Your task to perform on an android device: manage bookmarks in the chrome app Image 0: 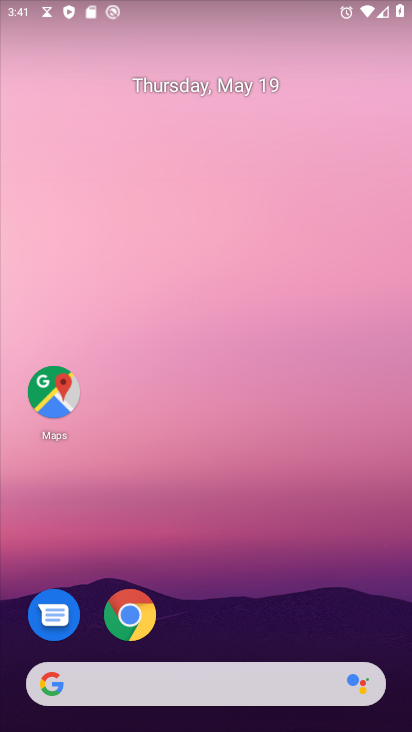
Step 0: drag from (294, 668) to (158, 139)
Your task to perform on an android device: manage bookmarks in the chrome app Image 1: 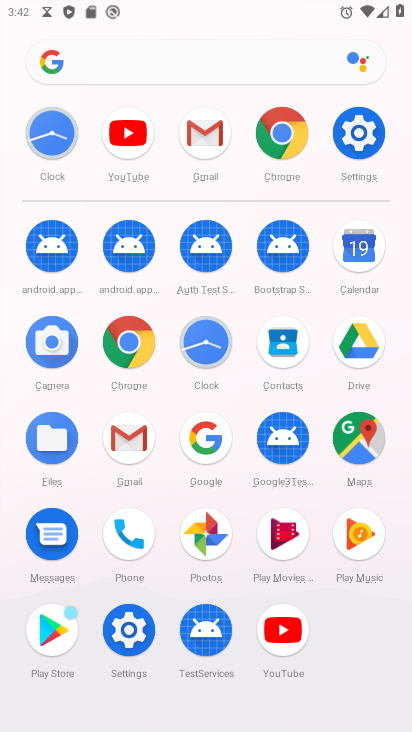
Step 1: click (291, 144)
Your task to perform on an android device: manage bookmarks in the chrome app Image 2: 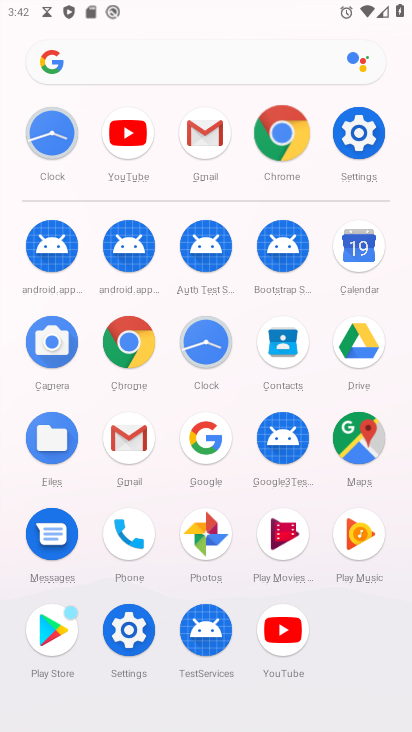
Step 2: click (288, 137)
Your task to perform on an android device: manage bookmarks in the chrome app Image 3: 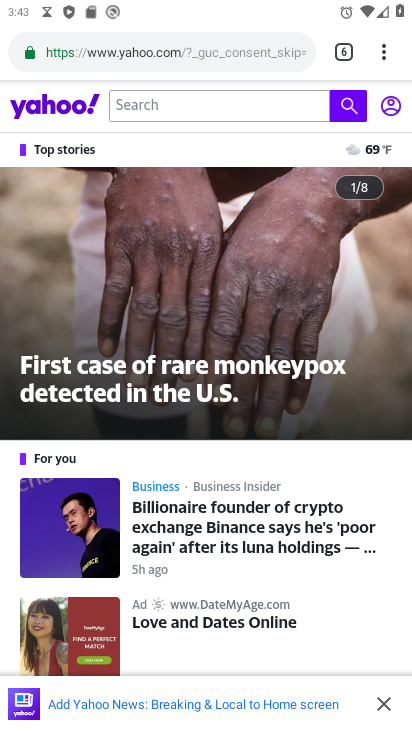
Step 3: click (381, 57)
Your task to perform on an android device: manage bookmarks in the chrome app Image 4: 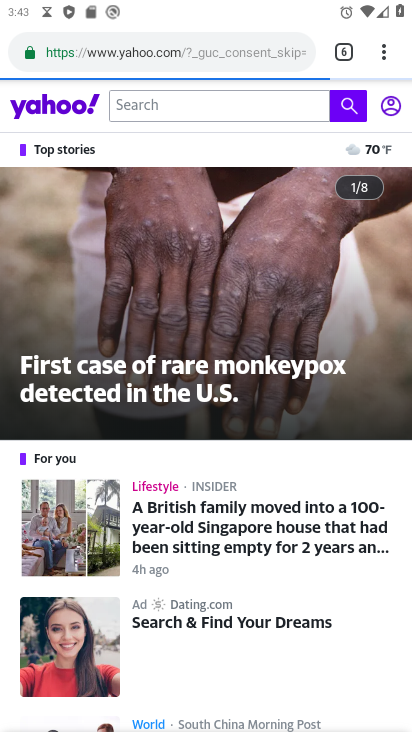
Step 4: drag from (386, 54) to (202, 200)
Your task to perform on an android device: manage bookmarks in the chrome app Image 5: 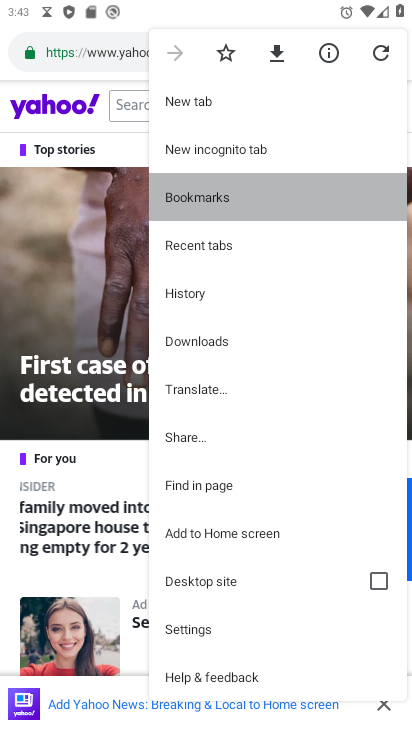
Step 5: click (204, 197)
Your task to perform on an android device: manage bookmarks in the chrome app Image 6: 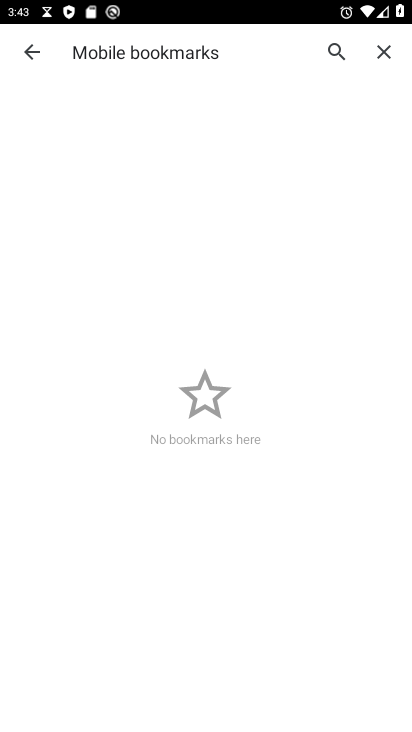
Step 6: task complete